Your task to perform on an android device: Go to Yahoo.com Image 0: 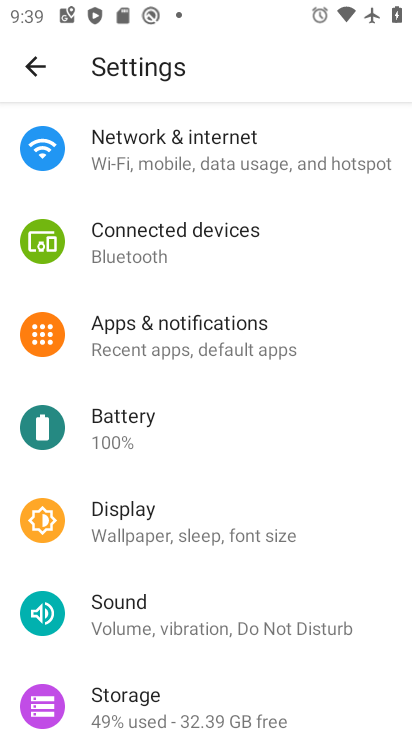
Step 0: press home button
Your task to perform on an android device: Go to Yahoo.com Image 1: 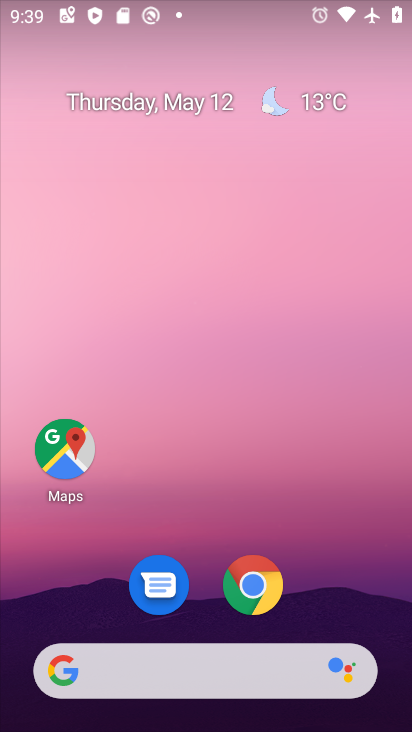
Step 1: click (193, 675)
Your task to perform on an android device: Go to Yahoo.com Image 2: 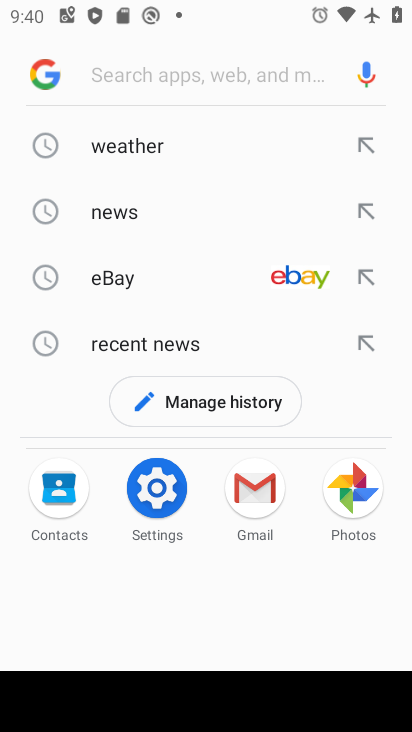
Step 2: type "yahoo.com"
Your task to perform on an android device: Go to Yahoo.com Image 3: 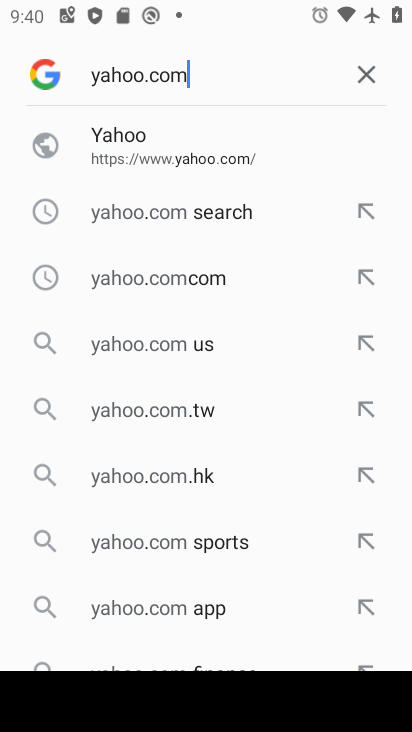
Step 3: click (132, 150)
Your task to perform on an android device: Go to Yahoo.com Image 4: 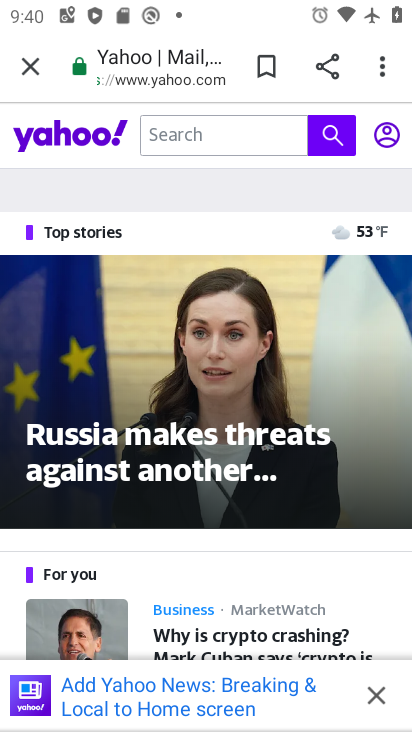
Step 4: task complete